Your task to perform on an android device: Go to Amazon Image 0: 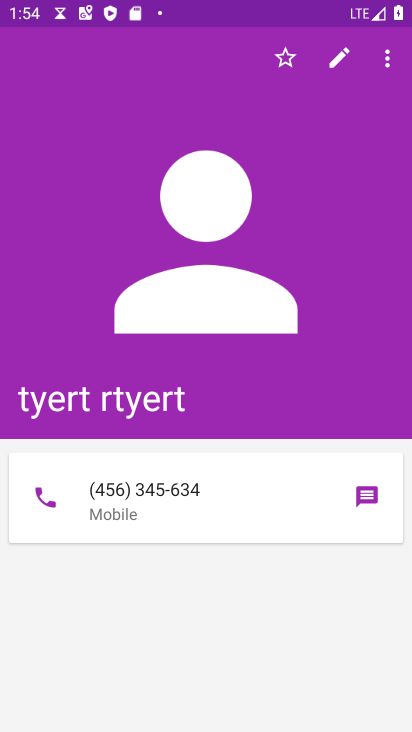
Step 0: press home button
Your task to perform on an android device: Go to Amazon Image 1: 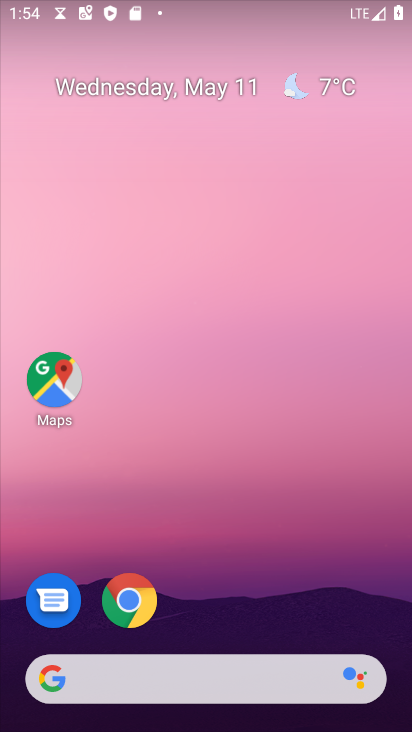
Step 1: click (136, 601)
Your task to perform on an android device: Go to Amazon Image 2: 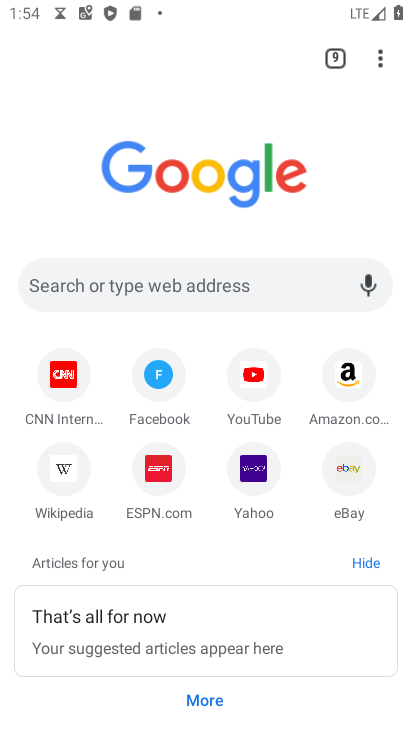
Step 2: click (331, 56)
Your task to perform on an android device: Go to Amazon Image 3: 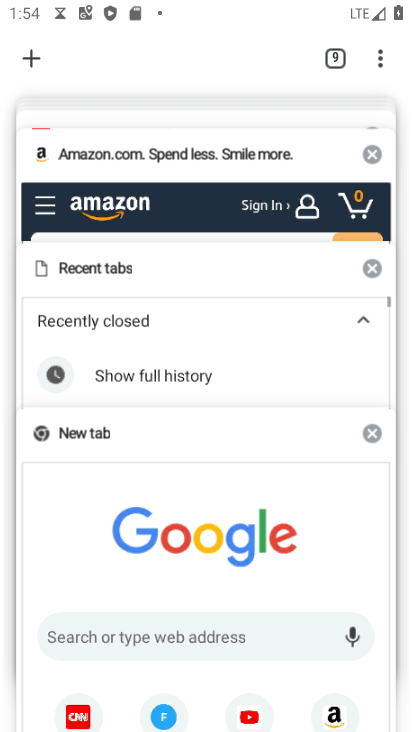
Step 3: click (225, 211)
Your task to perform on an android device: Go to Amazon Image 4: 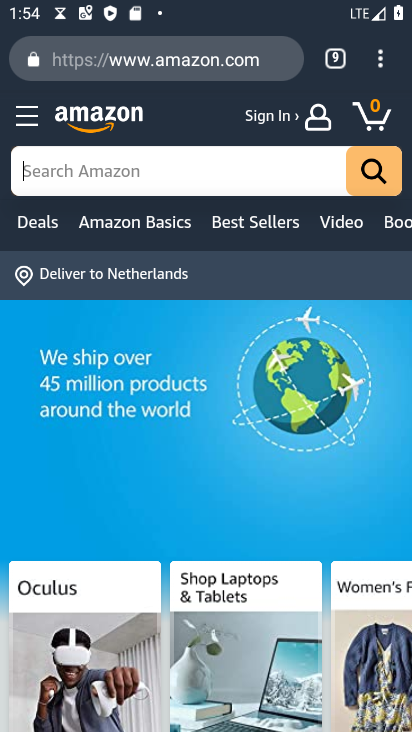
Step 4: task complete